Your task to perform on an android device: snooze an email in the gmail app Image 0: 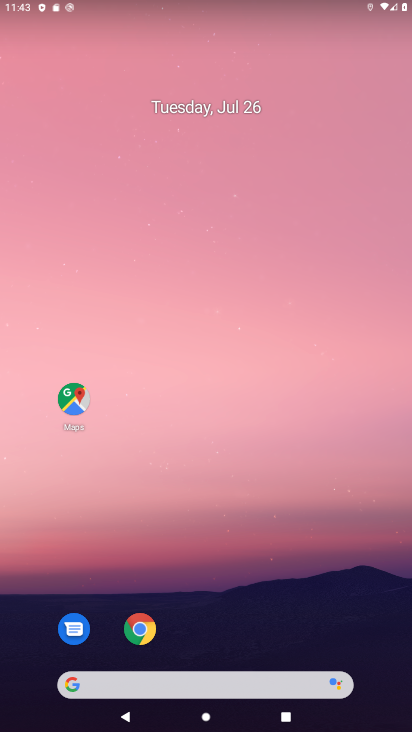
Step 0: drag from (220, 682) to (195, 85)
Your task to perform on an android device: snooze an email in the gmail app Image 1: 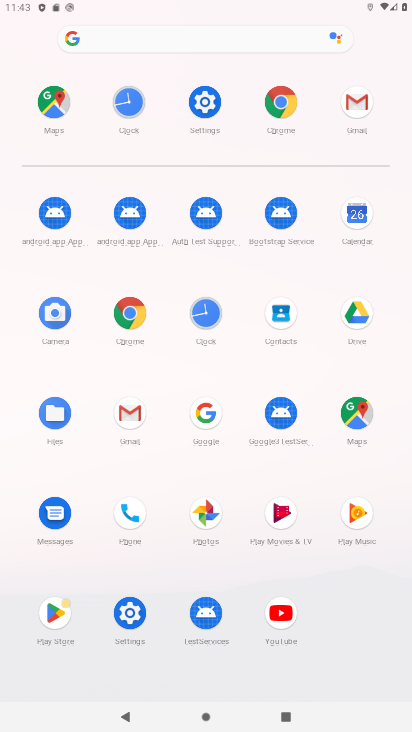
Step 1: click (116, 404)
Your task to perform on an android device: snooze an email in the gmail app Image 2: 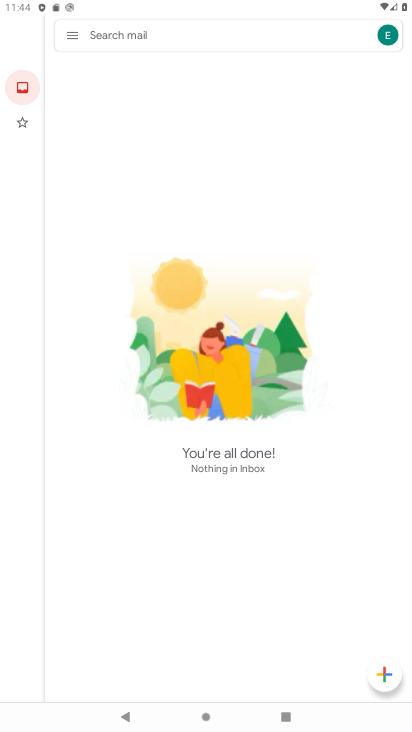
Step 2: task complete